Your task to perform on an android device: Turn off the flashlight Image 0: 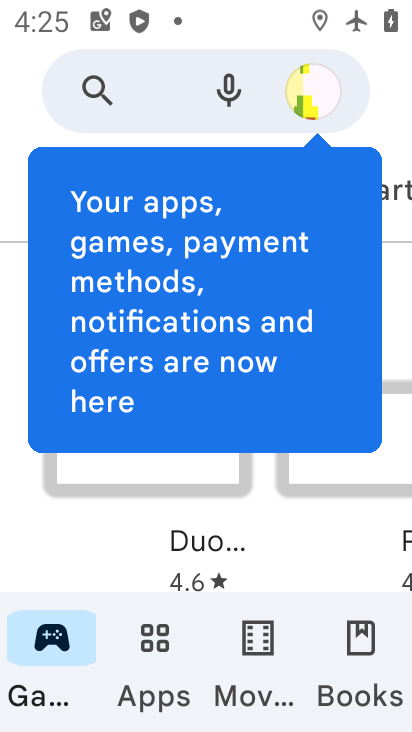
Step 0: press back button
Your task to perform on an android device: Turn off the flashlight Image 1: 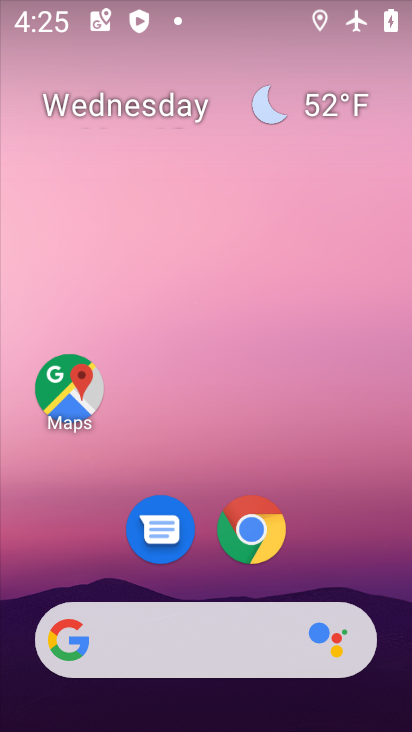
Step 1: drag from (352, 522) to (321, 43)
Your task to perform on an android device: Turn off the flashlight Image 2: 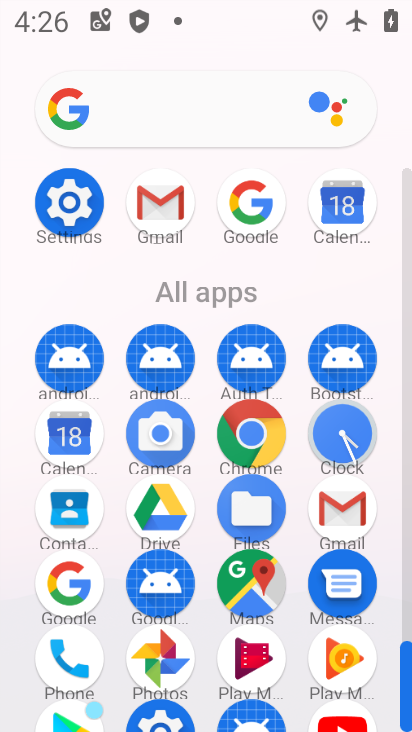
Step 2: click (73, 202)
Your task to perform on an android device: Turn off the flashlight Image 3: 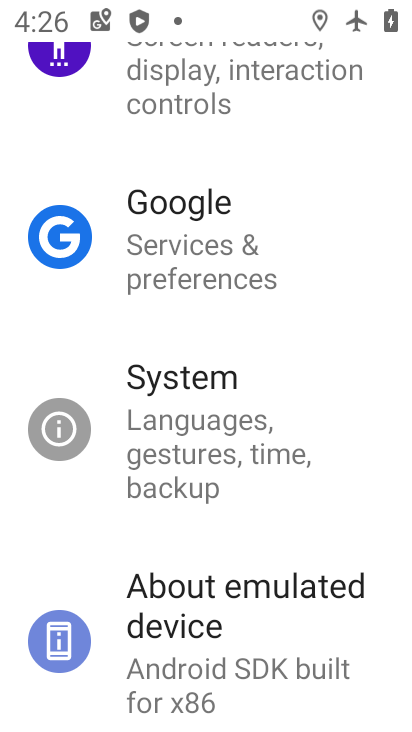
Step 3: drag from (277, 322) to (240, 514)
Your task to perform on an android device: Turn off the flashlight Image 4: 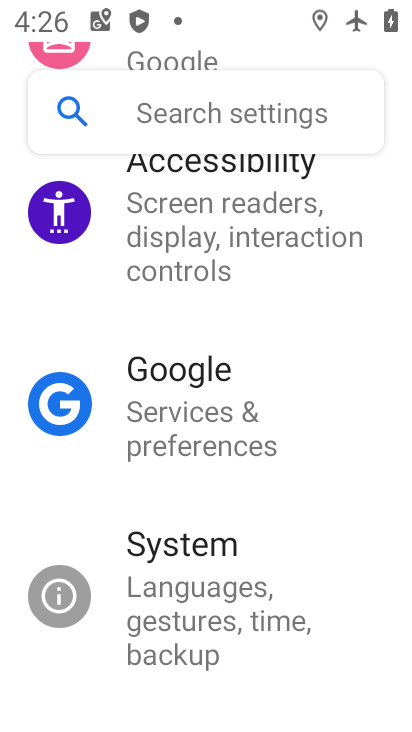
Step 4: drag from (226, 213) to (219, 488)
Your task to perform on an android device: Turn off the flashlight Image 5: 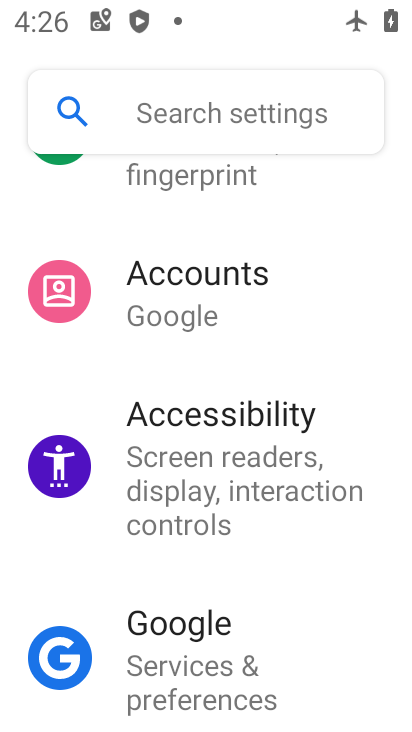
Step 5: drag from (222, 252) to (247, 540)
Your task to perform on an android device: Turn off the flashlight Image 6: 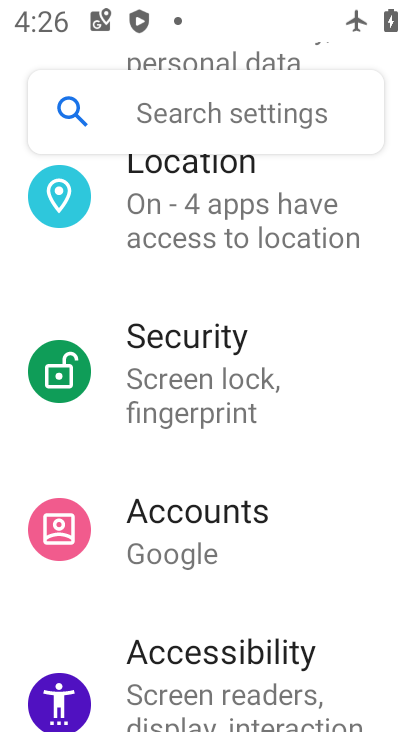
Step 6: drag from (214, 279) to (240, 536)
Your task to perform on an android device: Turn off the flashlight Image 7: 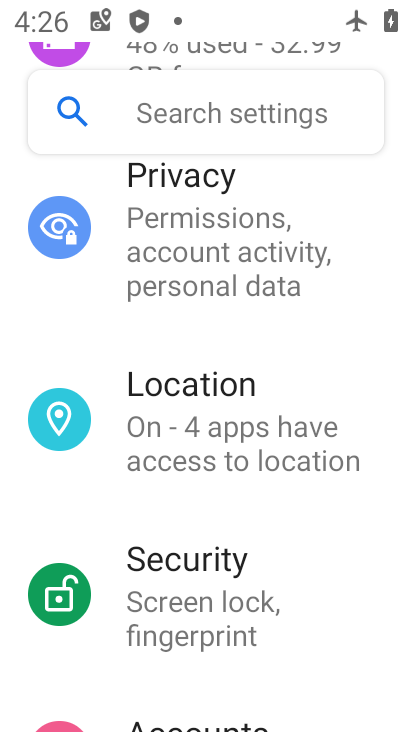
Step 7: drag from (214, 293) to (281, 552)
Your task to perform on an android device: Turn off the flashlight Image 8: 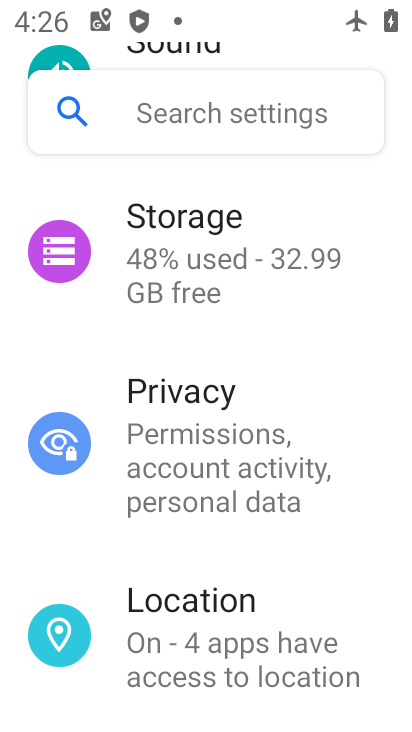
Step 8: drag from (251, 252) to (293, 533)
Your task to perform on an android device: Turn off the flashlight Image 9: 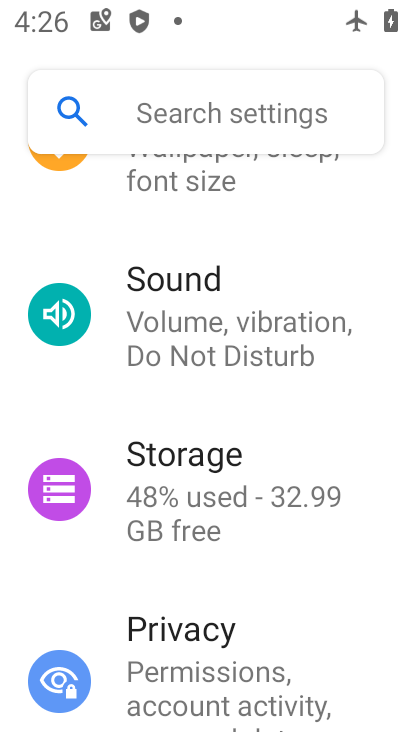
Step 9: drag from (236, 270) to (307, 481)
Your task to perform on an android device: Turn off the flashlight Image 10: 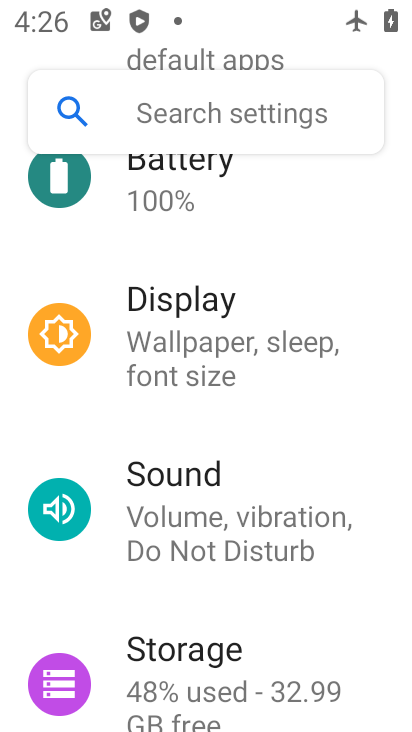
Step 10: click (251, 356)
Your task to perform on an android device: Turn off the flashlight Image 11: 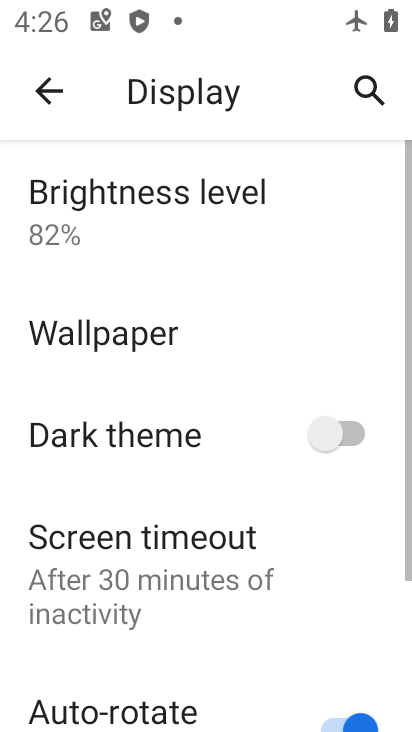
Step 11: drag from (195, 479) to (204, 324)
Your task to perform on an android device: Turn off the flashlight Image 12: 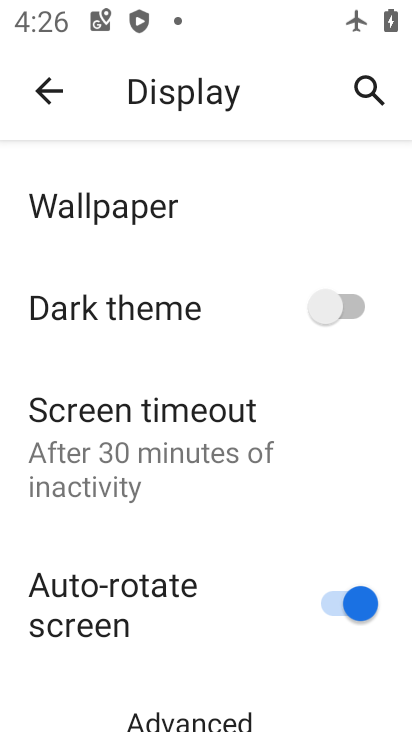
Step 12: click (178, 404)
Your task to perform on an android device: Turn off the flashlight Image 13: 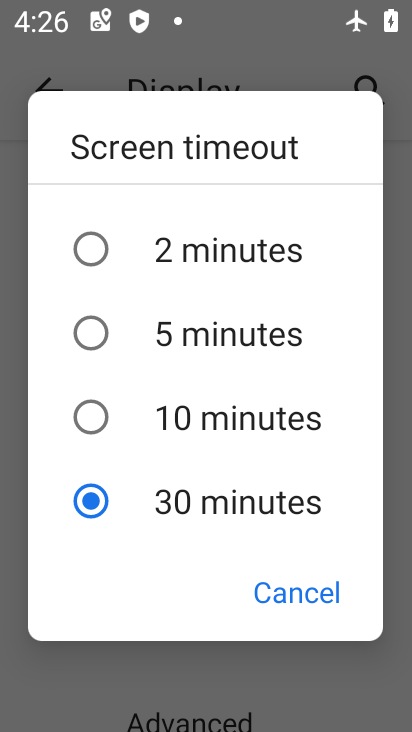
Step 13: press back button
Your task to perform on an android device: Turn off the flashlight Image 14: 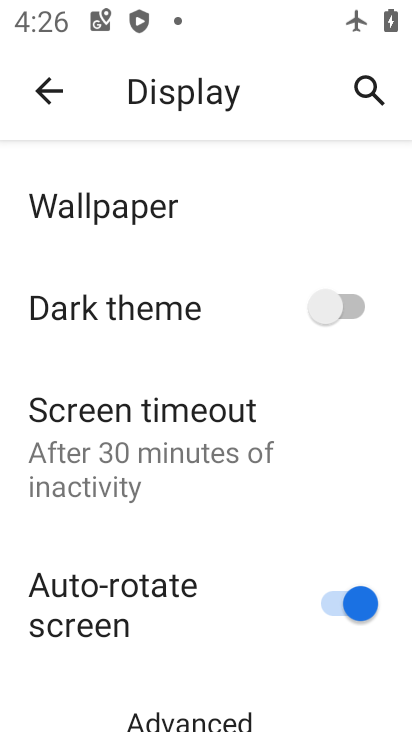
Step 14: drag from (311, 631) to (261, 308)
Your task to perform on an android device: Turn off the flashlight Image 15: 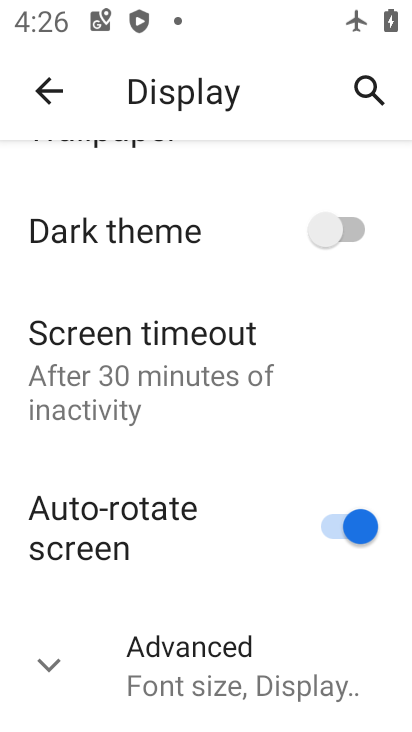
Step 15: click (187, 637)
Your task to perform on an android device: Turn off the flashlight Image 16: 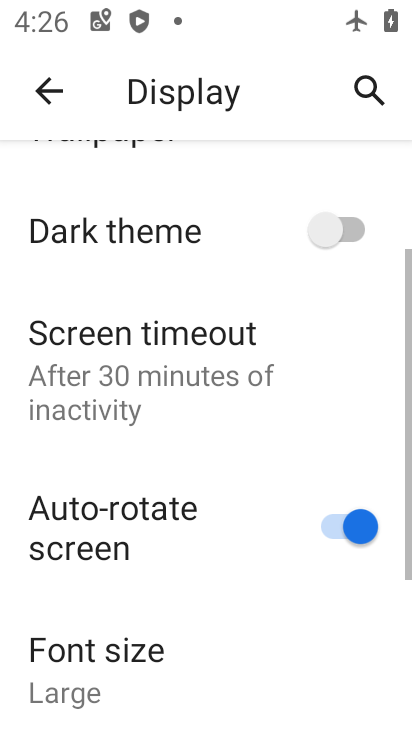
Step 16: task complete